Your task to perform on an android device: move a message to another label in the gmail app Image 0: 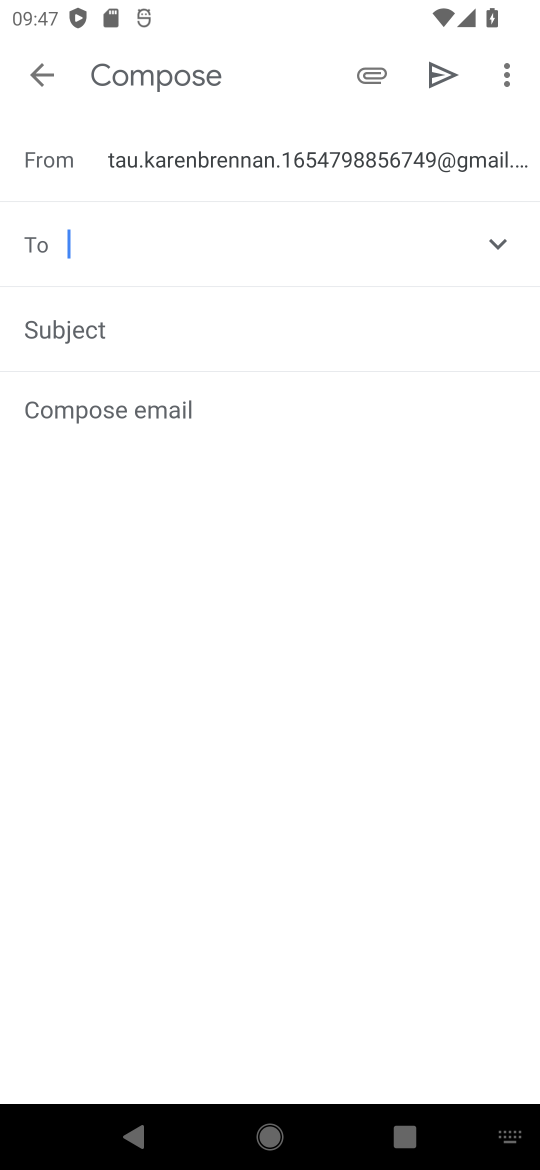
Step 0: press home button
Your task to perform on an android device: move a message to another label in the gmail app Image 1: 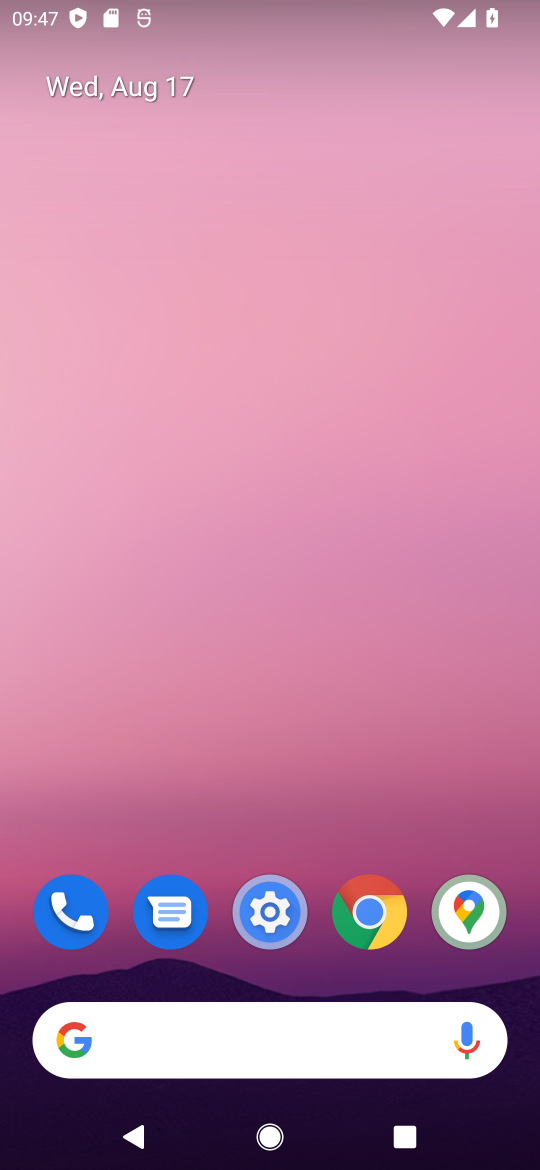
Step 1: drag from (195, 979) to (217, 531)
Your task to perform on an android device: move a message to another label in the gmail app Image 2: 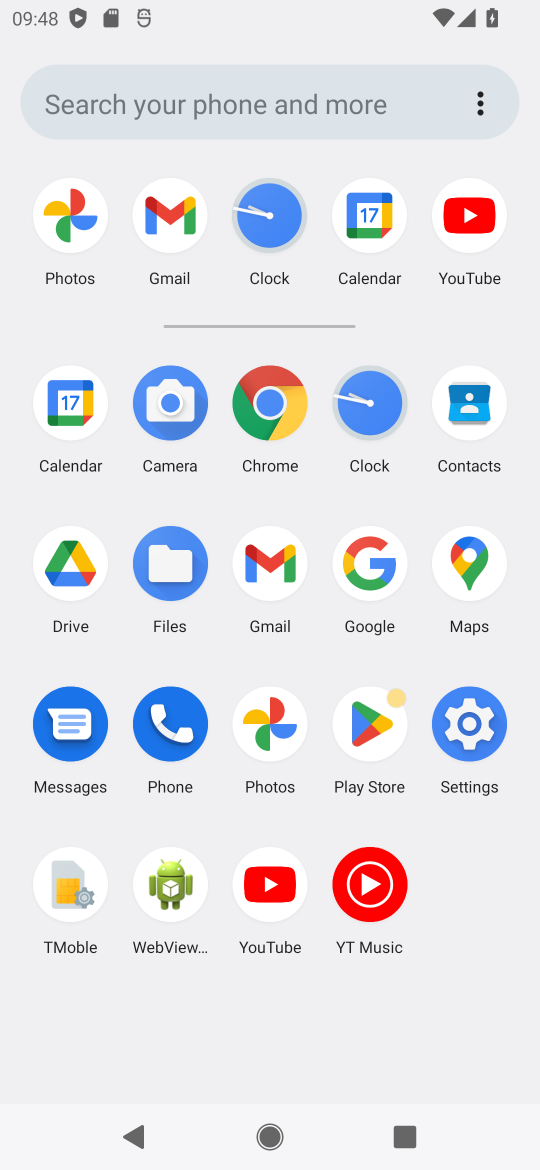
Step 2: click (166, 234)
Your task to perform on an android device: move a message to another label in the gmail app Image 3: 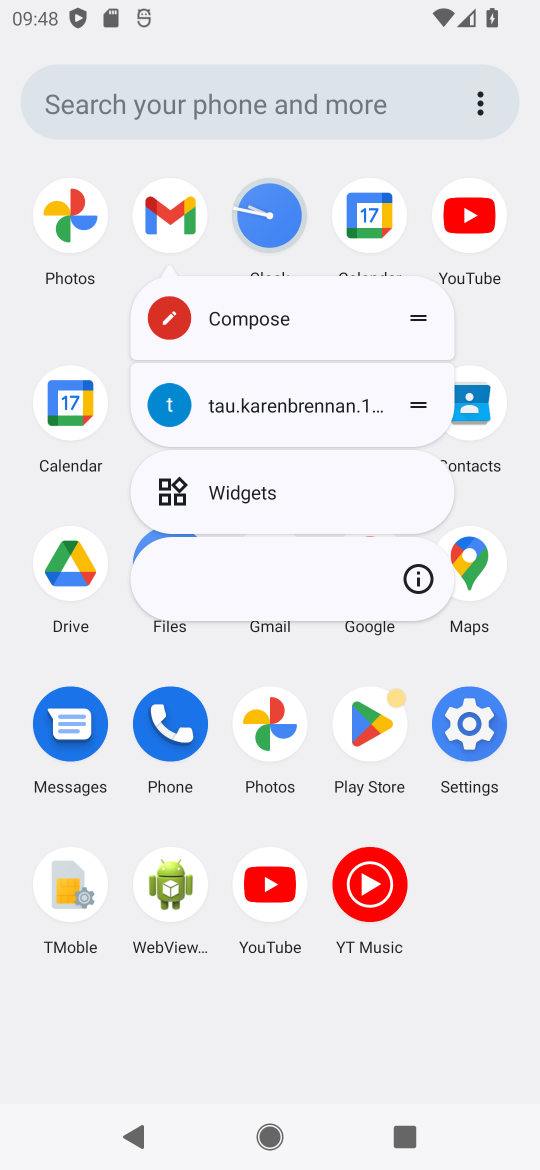
Step 3: click (154, 220)
Your task to perform on an android device: move a message to another label in the gmail app Image 4: 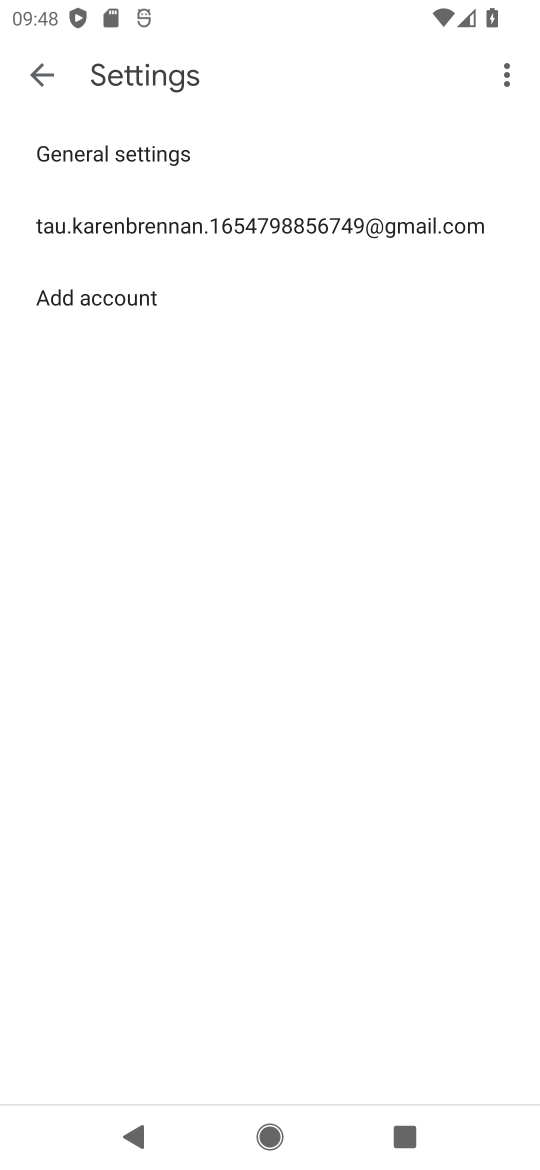
Step 4: click (28, 80)
Your task to perform on an android device: move a message to another label in the gmail app Image 5: 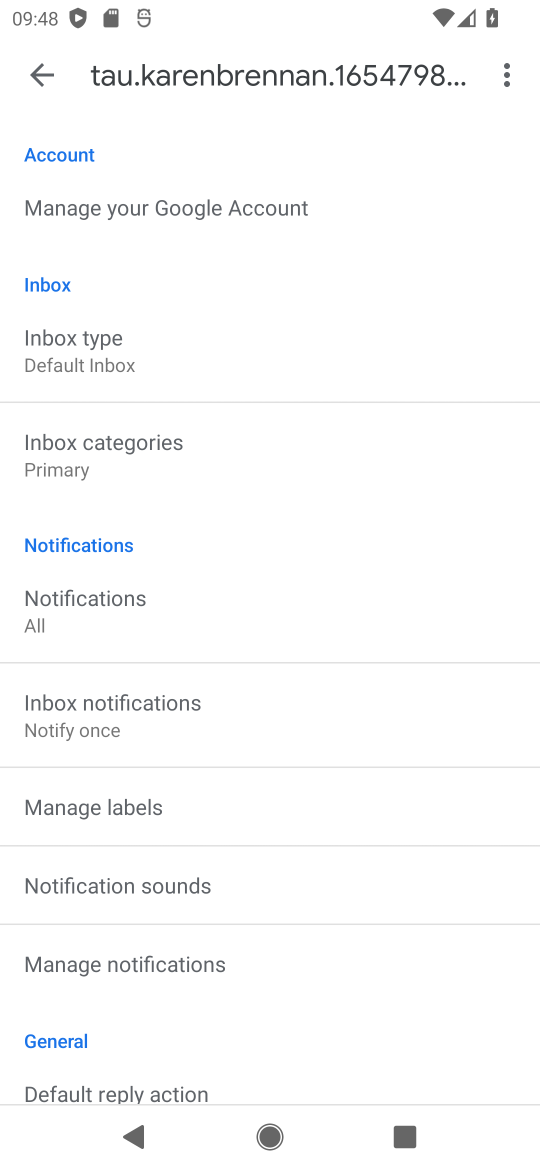
Step 5: click (38, 77)
Your task to perform on an android device: move a message to another label in the gmail app Image 6: 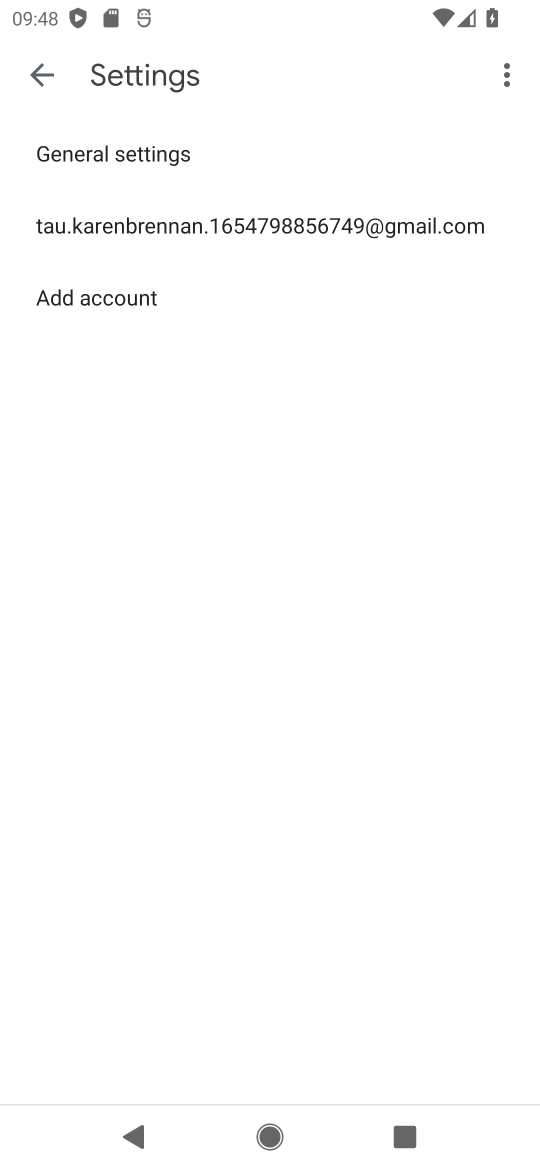
Step 6: click (54, 63)
Your task to perform on an android device: move a message to another label in the gmail app Image 7: 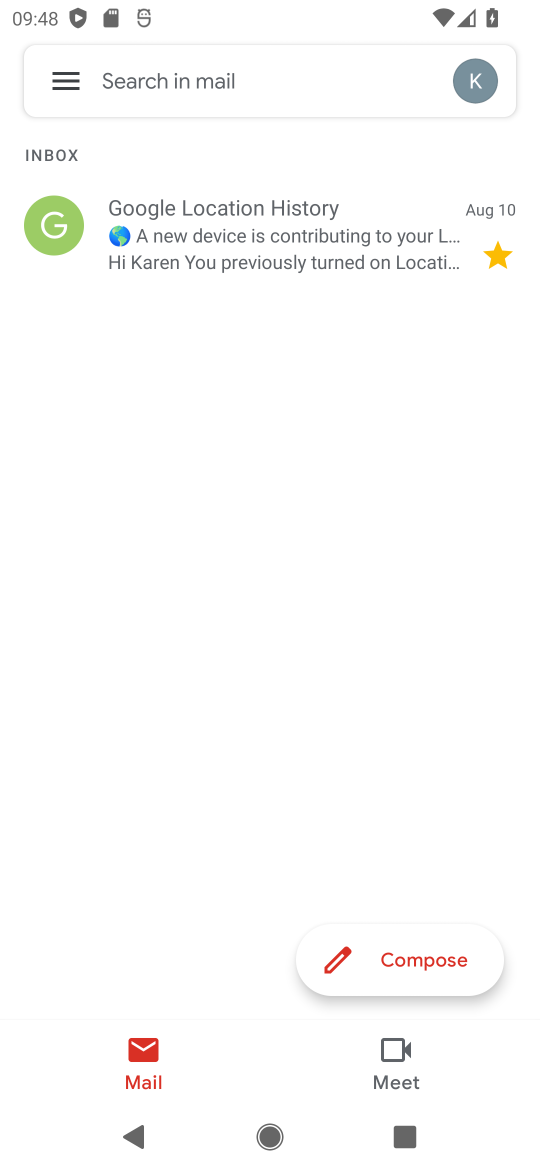
Step 7: click (59, 84)
Your task to perform on an android device: move a message to another label in the gmail app Image 8: 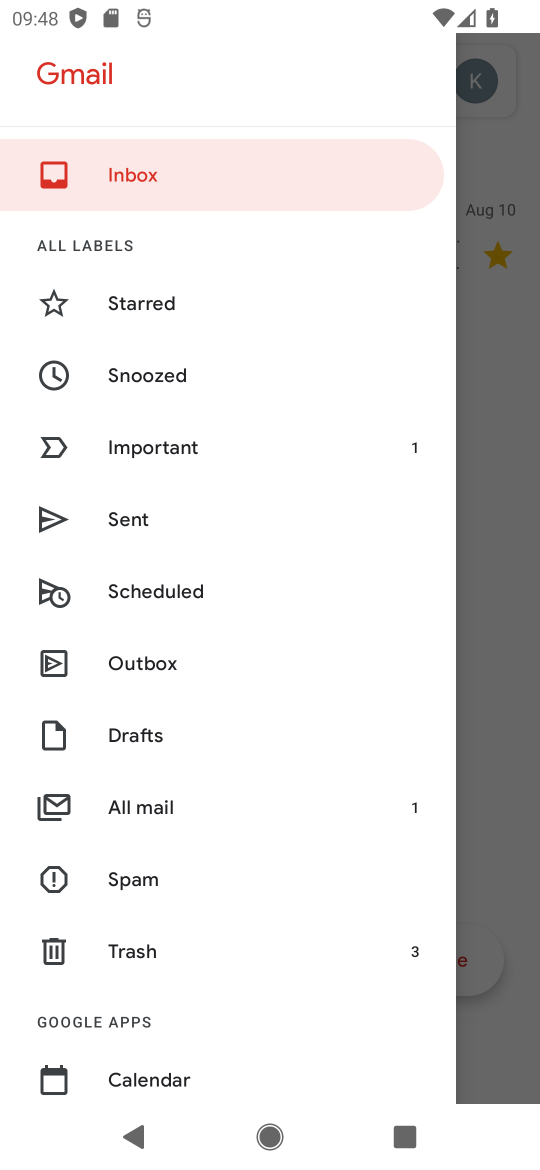
Step 8: click (109, 176)
Your task to perform on an android device: move a message to another label in the gmail app Image 9: 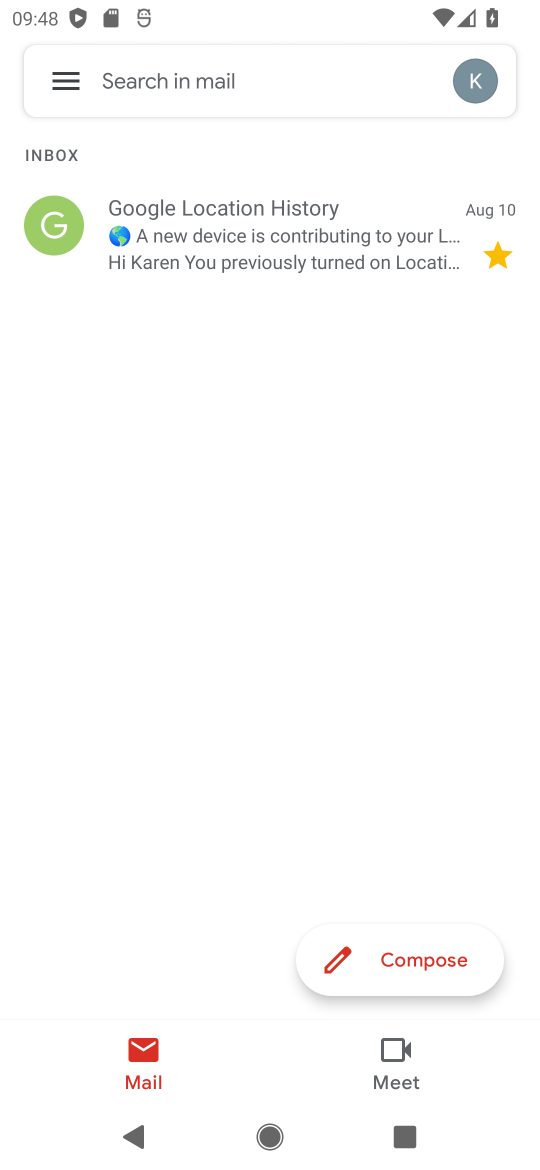
Step 9: click (328, 250)
Your task to perform on an android device: move a message to another label in the gmail app Image 10: 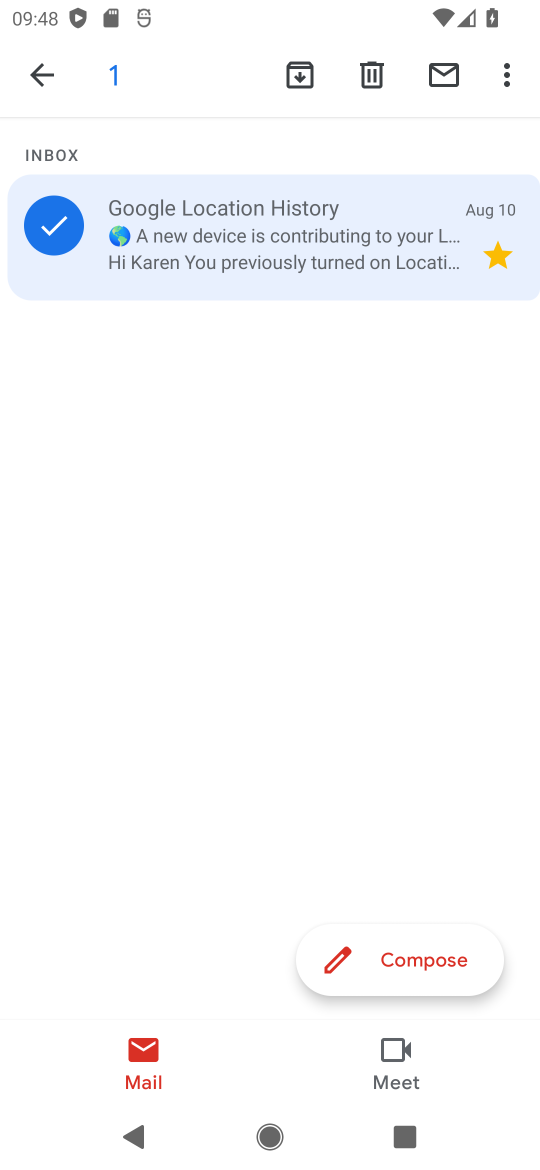
Step 10: click (502, 67)
Your task to perform on an android device: move a message to another label in the gmail app Image 11: 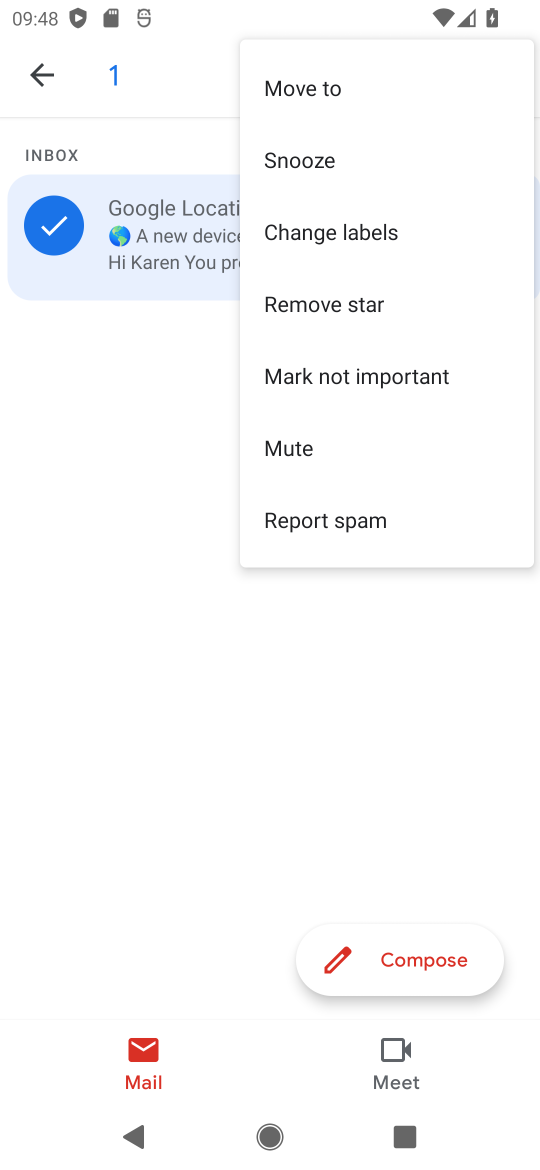
Step 11: click (309, 240)
Your task to perform on an android device: move a message to another label in the gmail app Image 12: 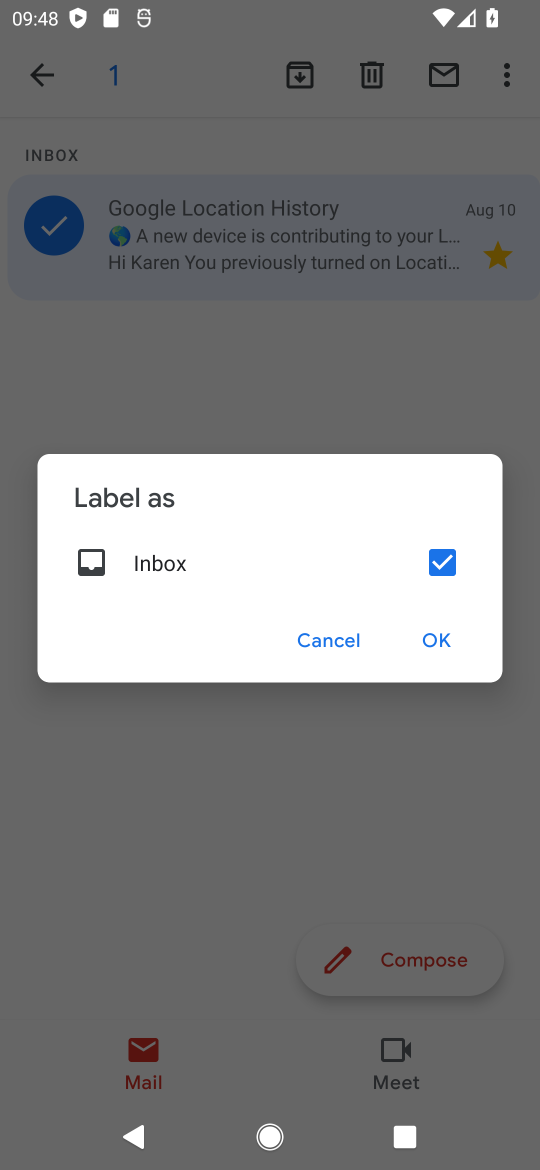
Step 12: click (419, 624)
Your task to perform on an android device: move a message to another label in the gmail app Image 13: 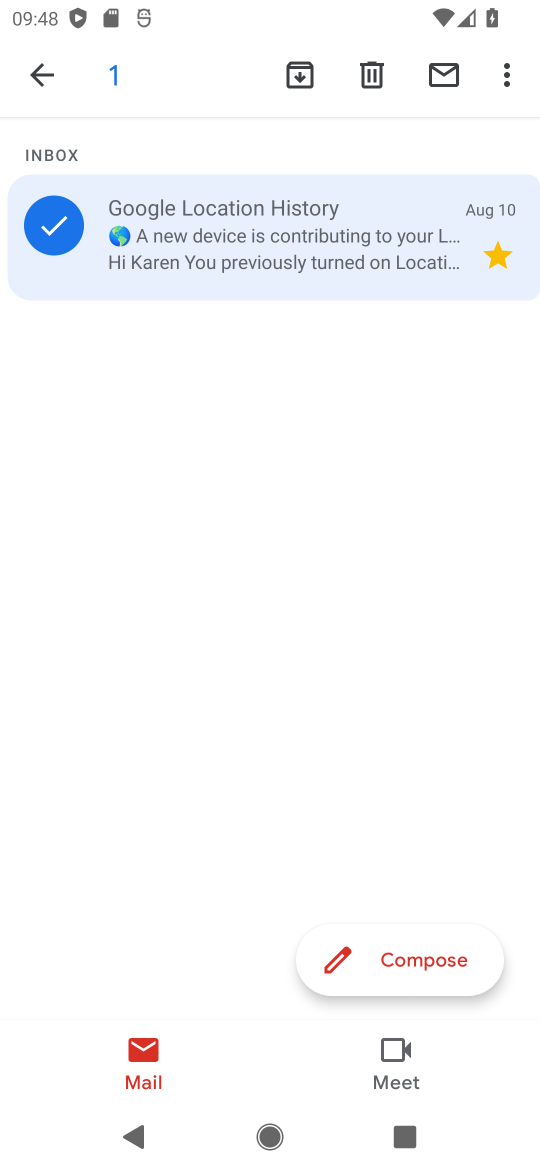
Step 13: task complete